Your task to perform on an android device: turn on improve location accuracy Image 0: 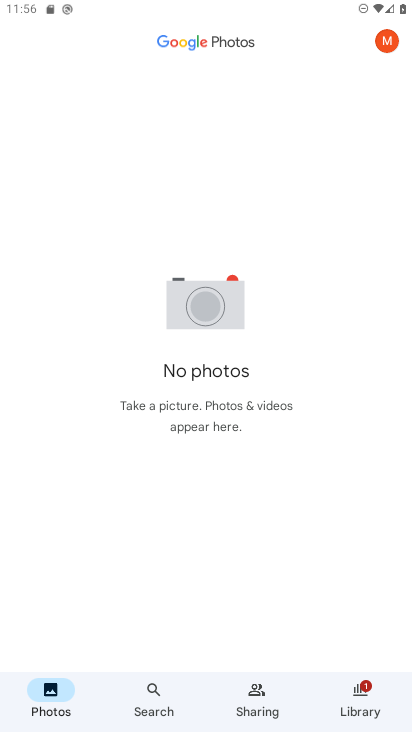
Step 0: press home button
Your task to perform on an android device: turn on improve location accuracy Image 1: 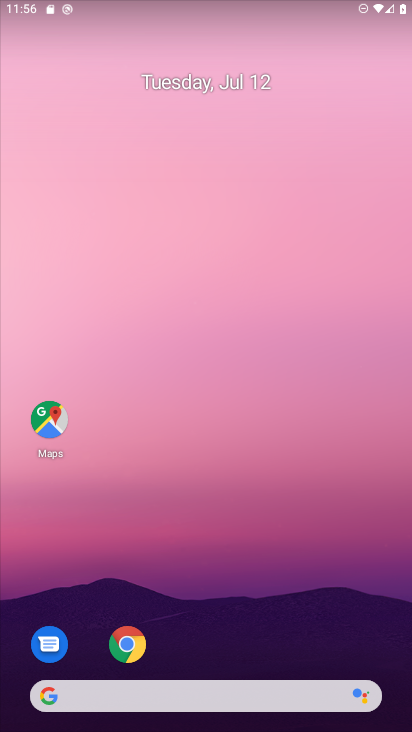
Step 1: drag from (188, 701) to (328, 16)
Your task to perform on an android device: turn on improve location accuracy Image 2: 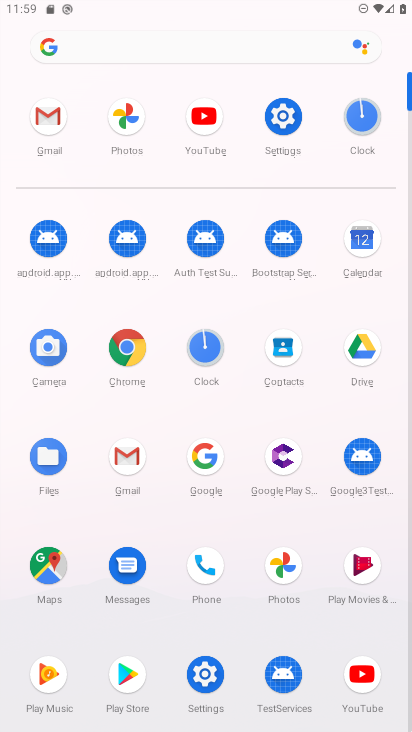
Step 2: click (284, 115)
Your task to perform on an android device: turn on improve location accuracy Image 3: 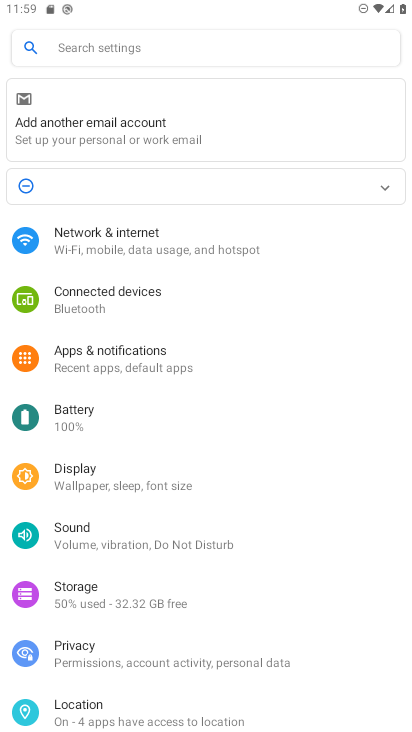
Step 3: click (120, 711)
Your task to perform on an android device: turn on improve location accuracy Image 4: 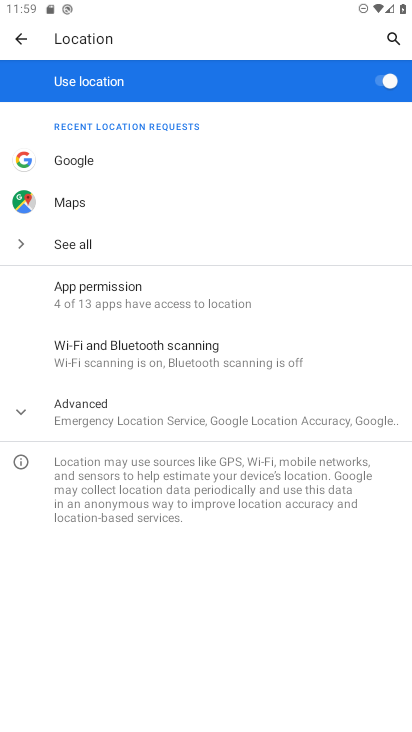
Step 4: click (269, 414)
Your task to perform on an android device: turn on improve location accuracy Image 5: 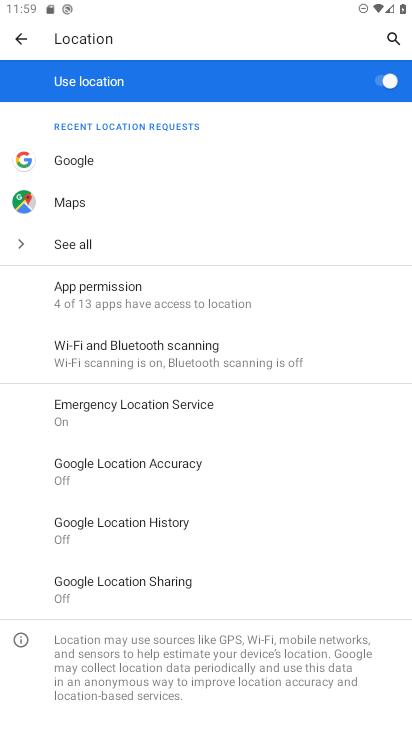
Step 5: click (205, 467)
Your task to perform on an android device: turn on improve location accuracy Image 6: 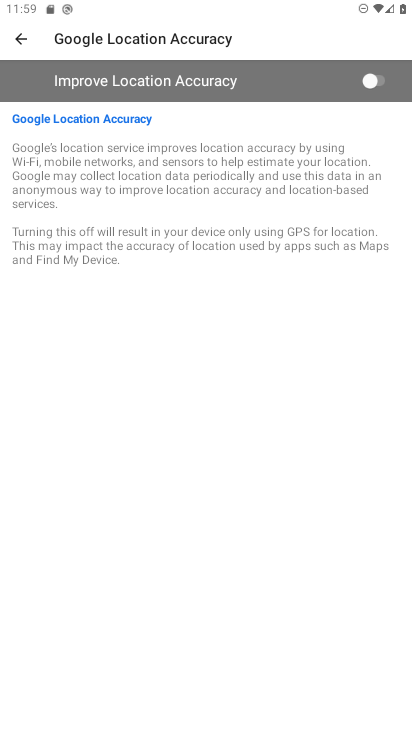
Step 6: click (379, 85)
Your task to perform on an android device: turn on improve location accuracy Image 7: 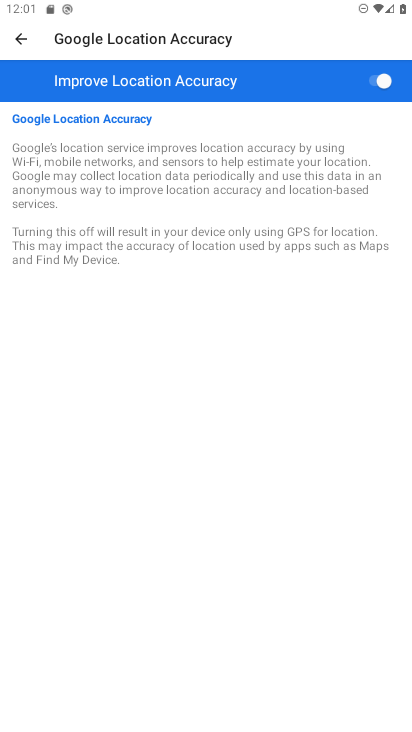
Step 7: task complete